Your task to perform on an android device: turn on data saver in the chrome app Image 0: 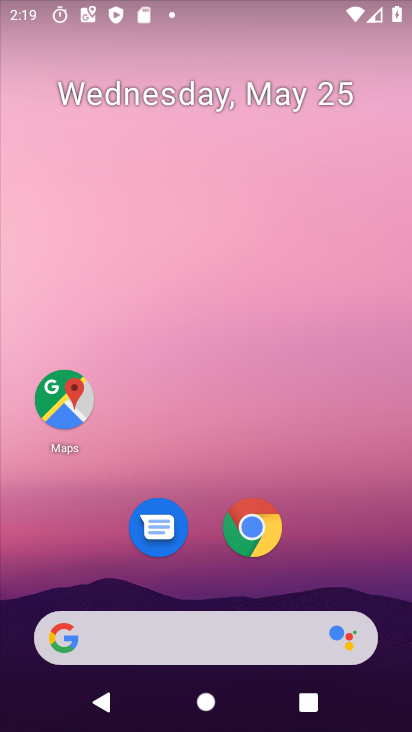
Step 0: drag from (189, 539) to (272, 80)
Your task to perform on an android device: turn on data saver in the chrome app Image 1: 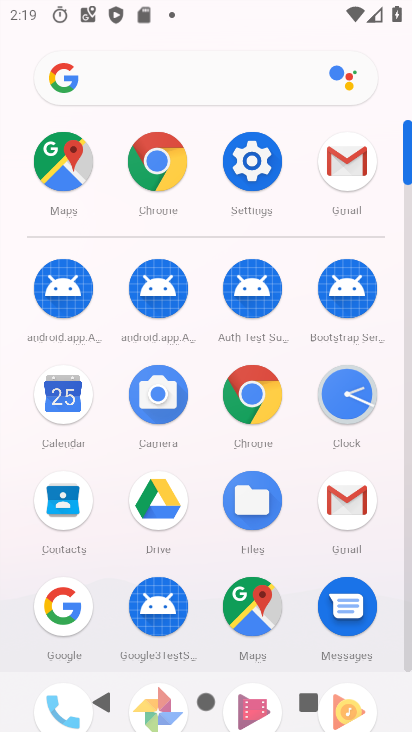
Step 1: click (236, 396)
Your task to perform on an android device: turn on data saver in the chrome app Image 2: 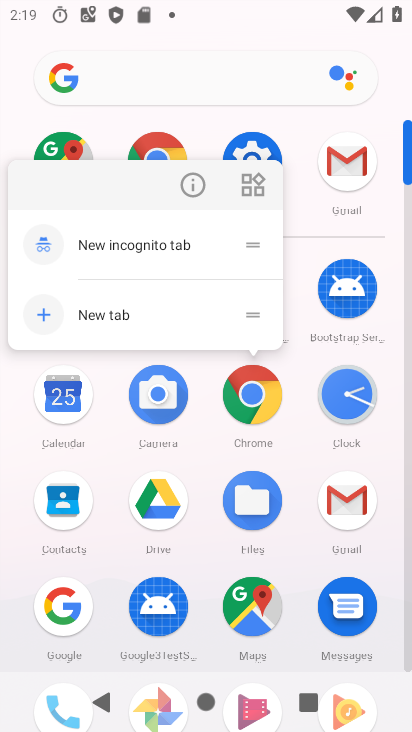
Step 2: click (208, 180)
Your task to perform on an android device: turn on data saver in the chrome app Image 3: 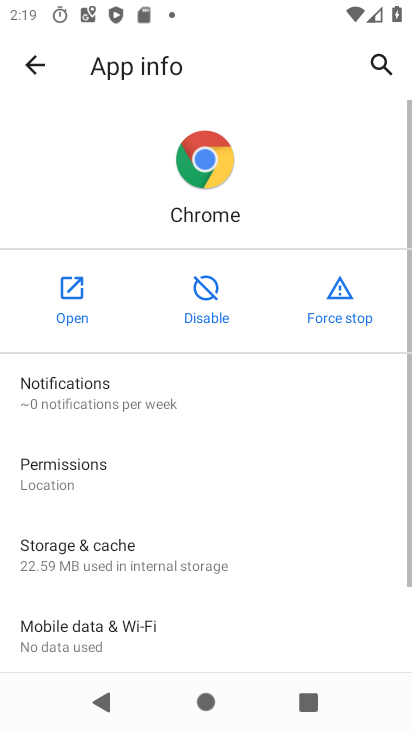
Step 3: click (67, 289)
Your task to perform on an android device: turn on data saver in the chrome app Image 4: 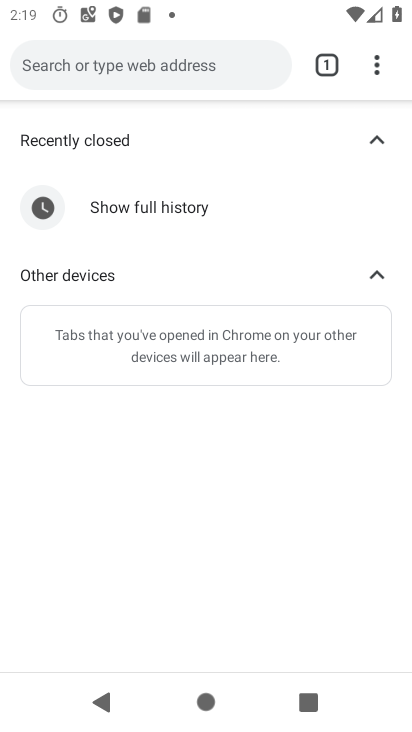
Step 4: click (375, 62)
Your task to perform on an android device: turn on data saver in the chrome app Image 5: 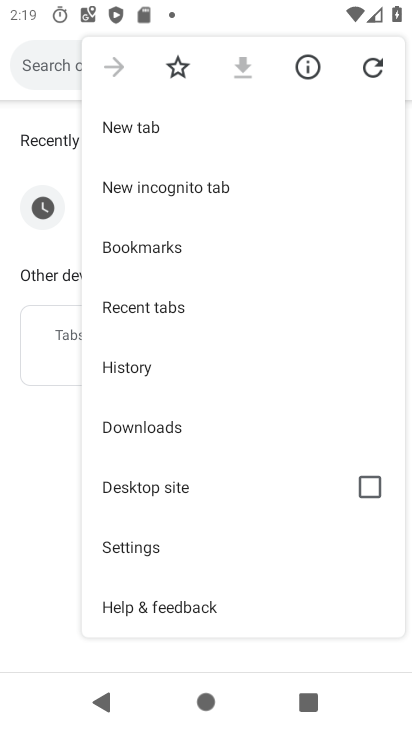
Step 5: drag from (269, 522) to (350, 19)
Your task to perform on an android device: turn on data saver in the chrome app Image 6: 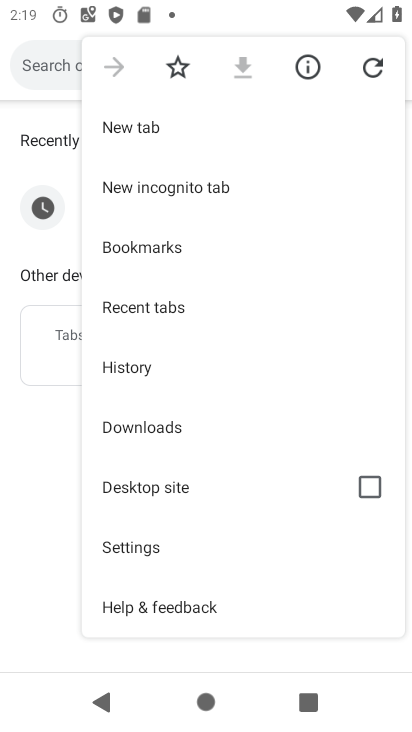
Step 6: click (181, 545)
Your task to perform on an android device: turn on data saver in the chrome app Image 7: 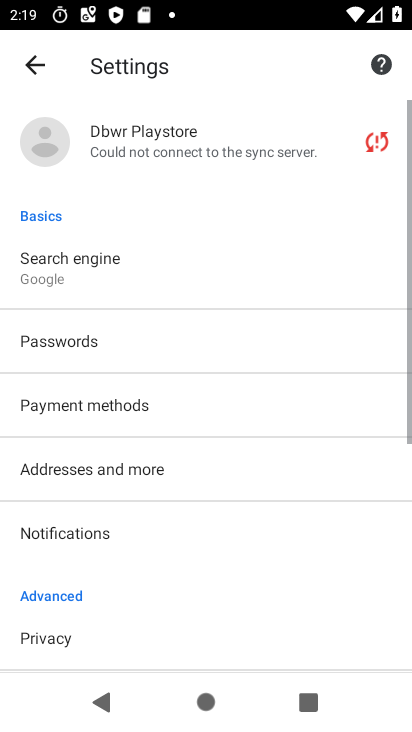
Step 7: drag from (174, 535) to (277, 143)
Your task to perform on an android device: turn on data saver in the chrome app Image 8: 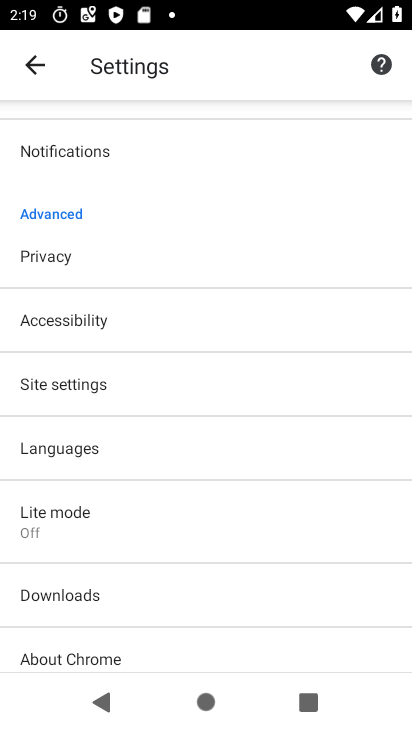
Step 8: click (62, 542)
Your task to perform on an android device: turn on data saver in the chrome app Image 9: 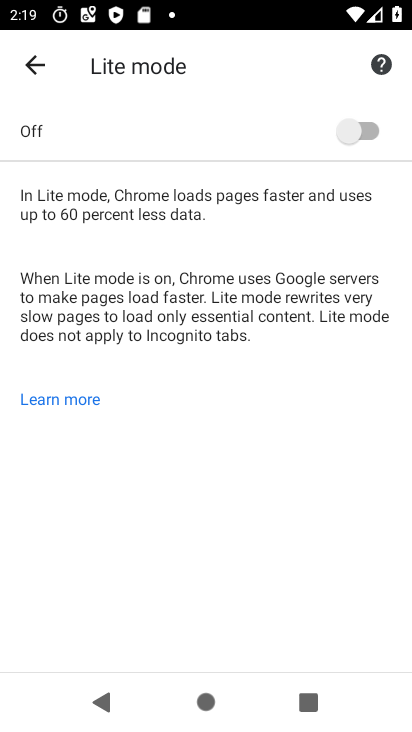
Step 9: click (348, 121)
Your task to perform on an android device: turn on data saver in the chrome app Image 10: 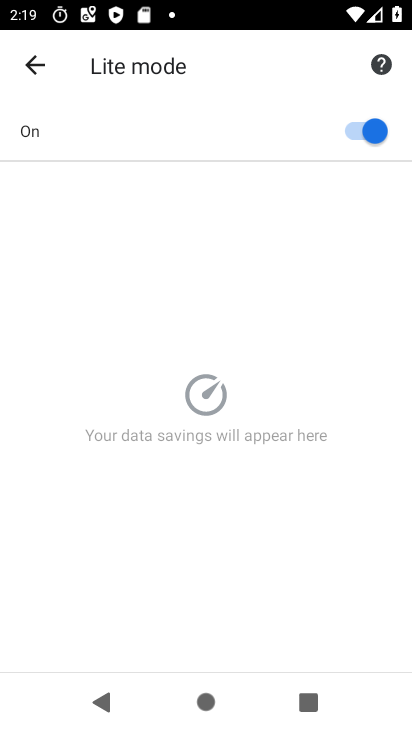
Step 10: task complete